Your task to perform on an android device: turn pop-ups off in chrome Image 0: 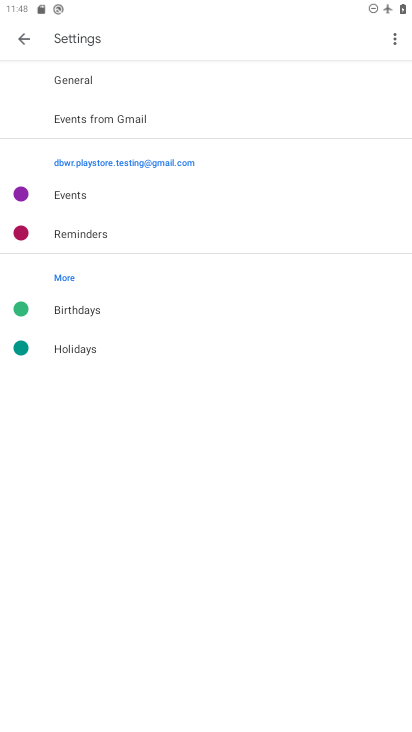
Step 0: press home button
Your task to perform on an android device: turn pop-ups off in chrome Image 1: 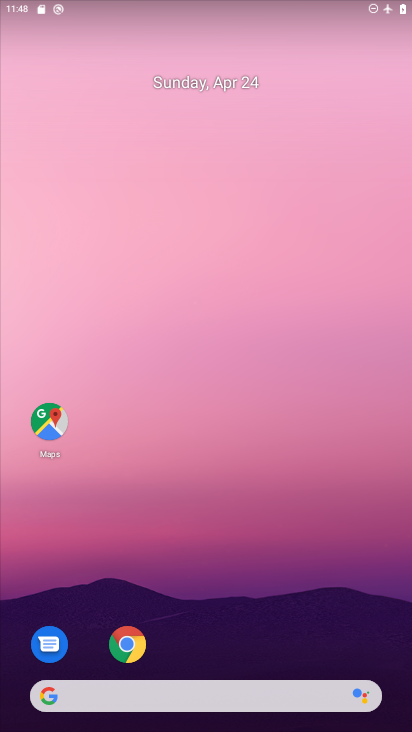
Step 1: click (117, 642)
Your task to perform on an android device: turn pop-ups off in chrome Image 2: 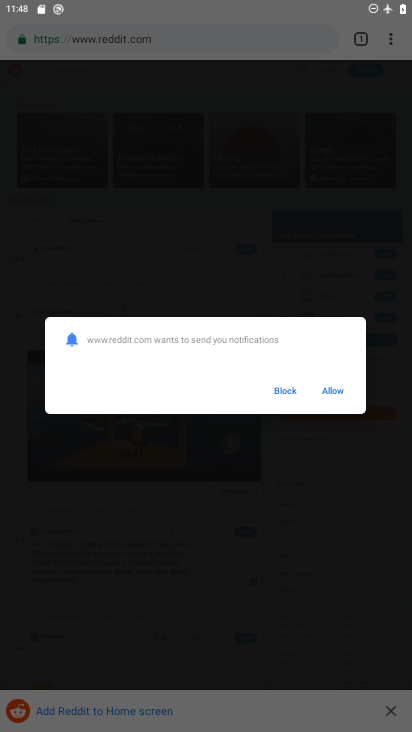
Step 2: click (280, 389)
Your task to perform on an android device: turn pop-ups off in chrome Image 3: 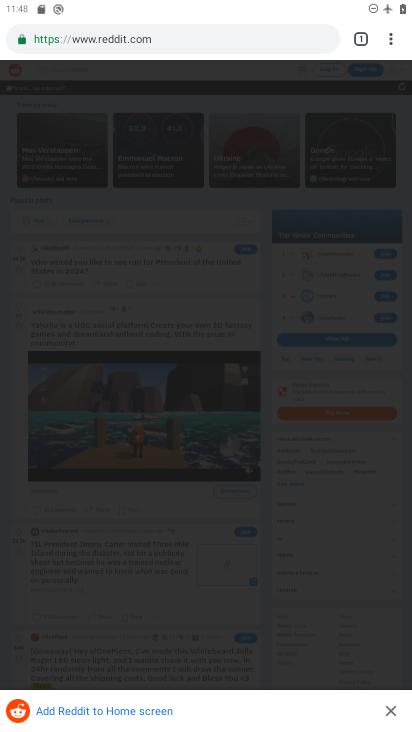
Step 3: click (384, 55)
Your task to perform on an android device: turn pop-ups off in chrome Image 4: 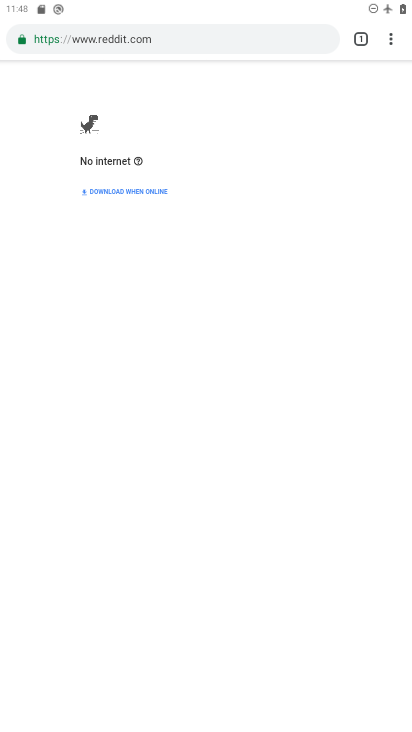
Step 4: click (392, 44)
Your task to perform on an android device: turn pop-ups off in chrome Image 5: 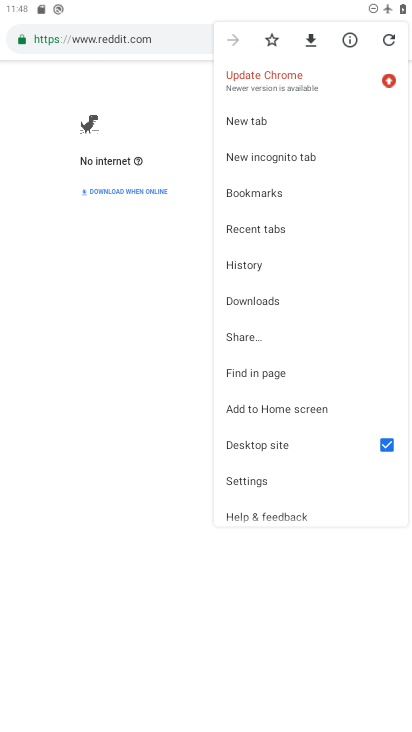
Step 5: click (254, 479)
Your task to perform on an android device: turn pop-ups off in chrome Image 6: 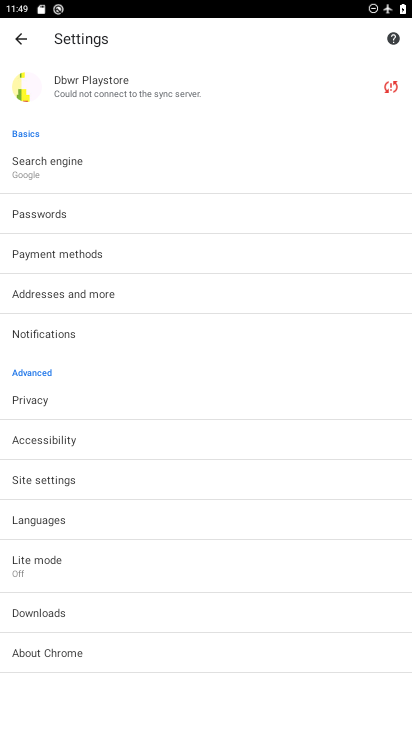
Step 6: click (61, 481)
Your task to perform on an android device: turn pop-ups off in chrome Image 7: 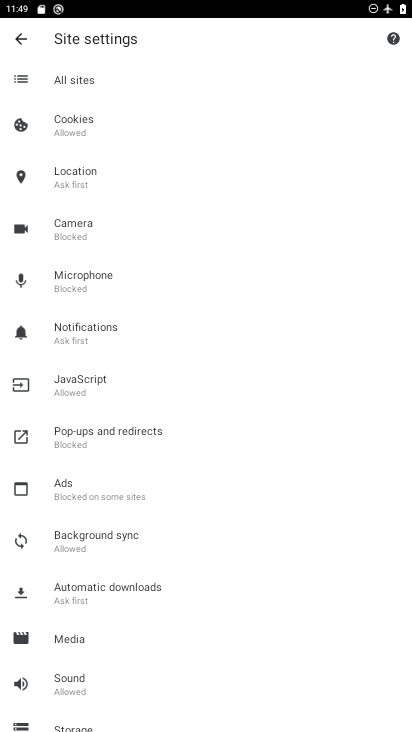
Step 7: click (74, 444)
Your task to perform on an android device: turn pop-ups off in chrome Image 8: 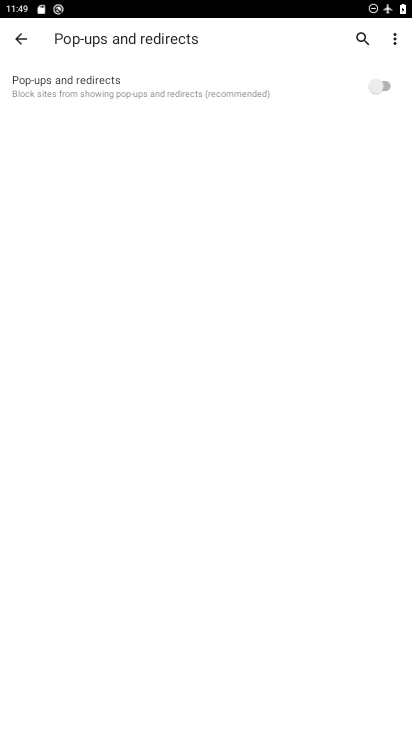
Step 8: task complete